Your task to perform on an android device: turn on improve location accuracy Image 0: 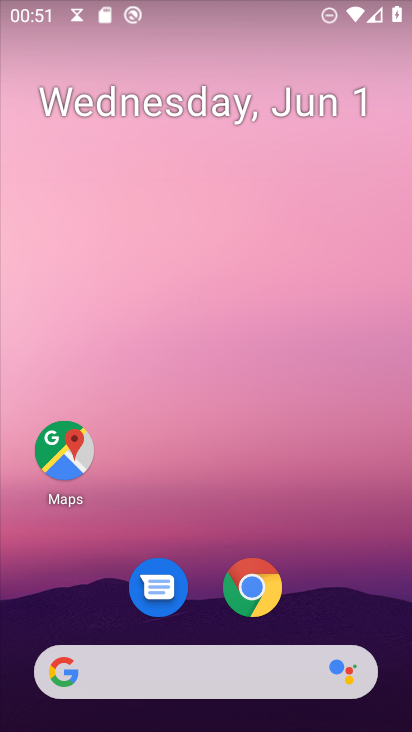
Step 0: drag from (338, 616) to (320, 20)
Your task to perform on an android device: turn on improve location accuracy Image 1: 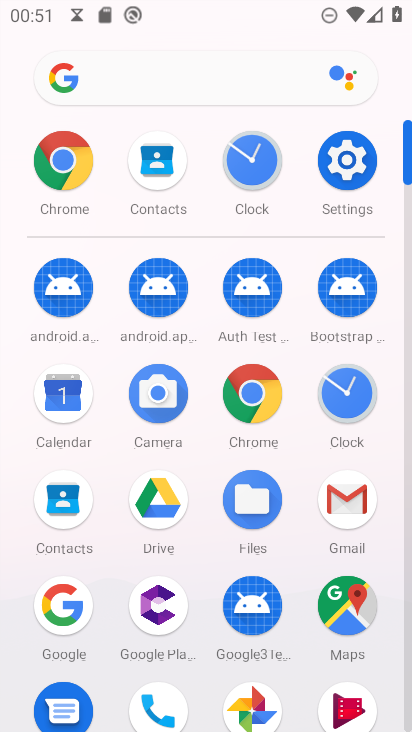
Step 1: click (358, 157)
Your task to perform on an android device: turn on improve location accuracy Image 2: 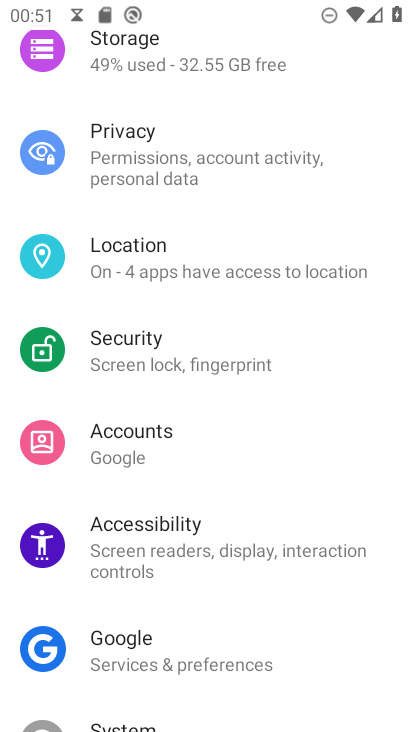
Step 2: click (162, 270)
Your task to perform on an android device: turn on improve location accuracy Image 3: 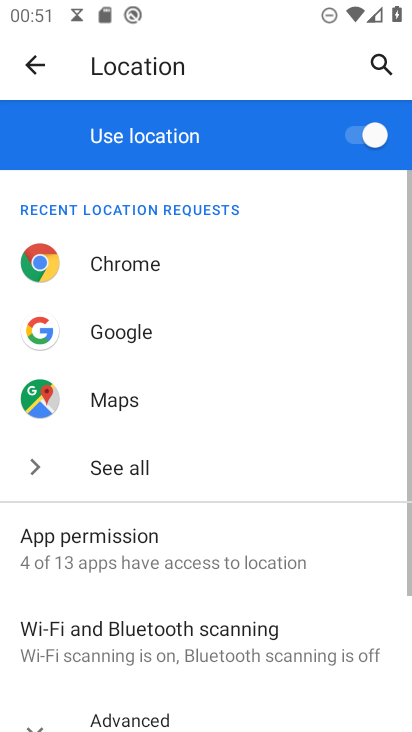
Step 3: drag from (226, 684) to (242, 342)
Your task to perform on an android device: turn on improve location accuracy Image 4: 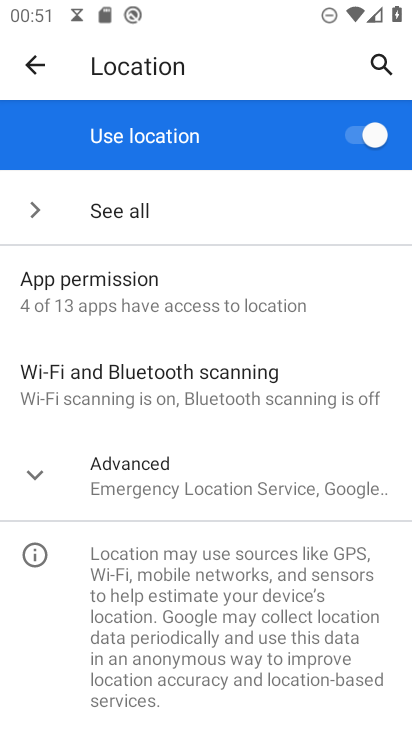
Step 4: click (150, 483)
Your task to perform on an android device: turn on improve location accuracy Image 5: 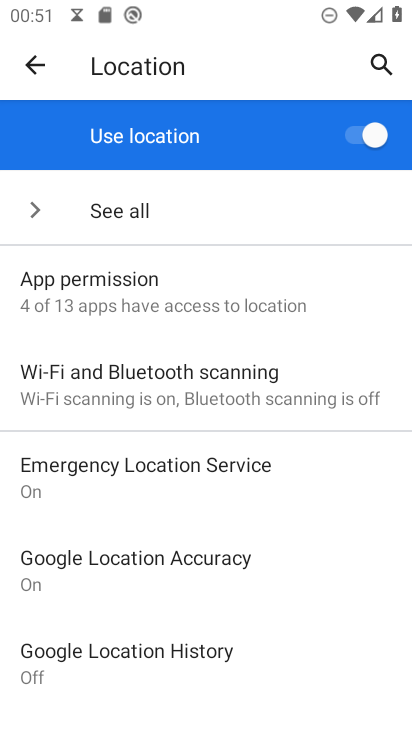
Step 5: click (146, 553)
Your task to perform on an android device: turn on improve location accuracy Image 6: 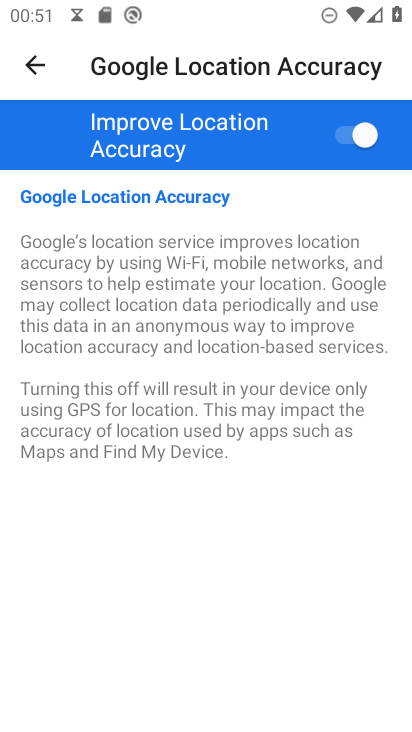
Step 6: task complete